Your task to perform on an android device: Go to Google Image 0: 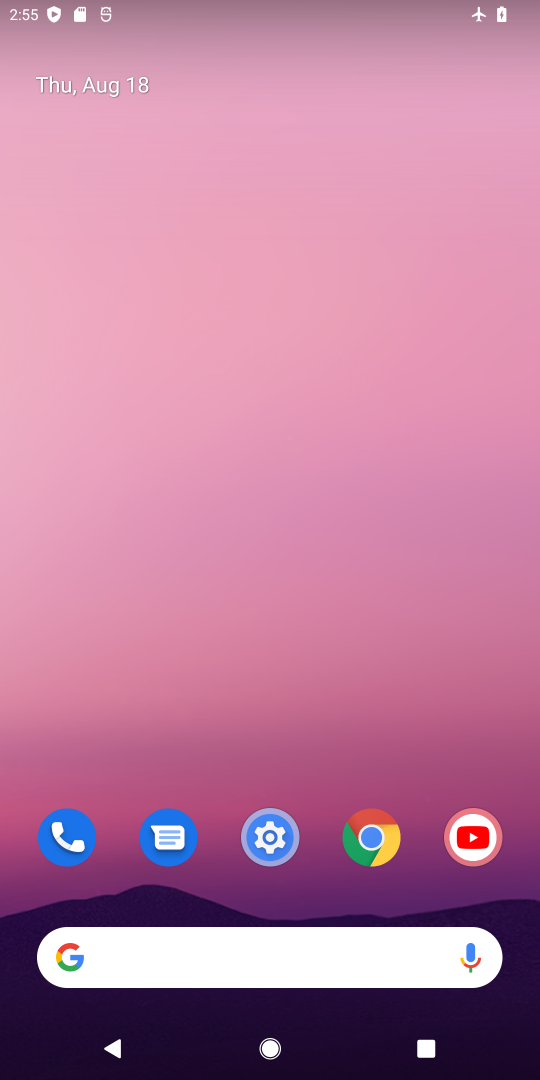
Step 0: drag from (322, 728) to (467, 6)
Your task to perform on an android device: Go to Google Image 1: 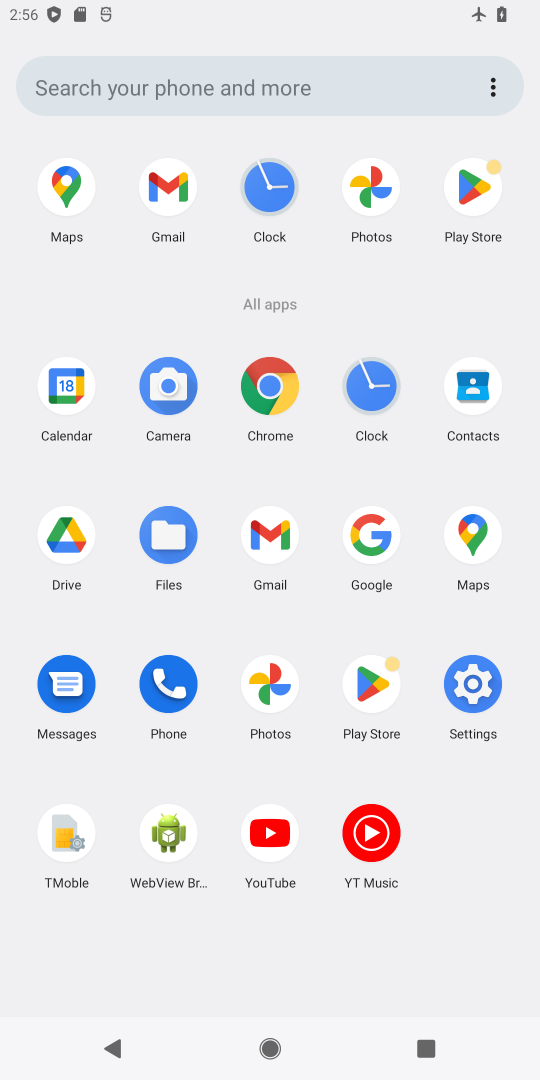
Step 1: click (368, 537)
Your task to perform on an android device: Go to Google Image 2: 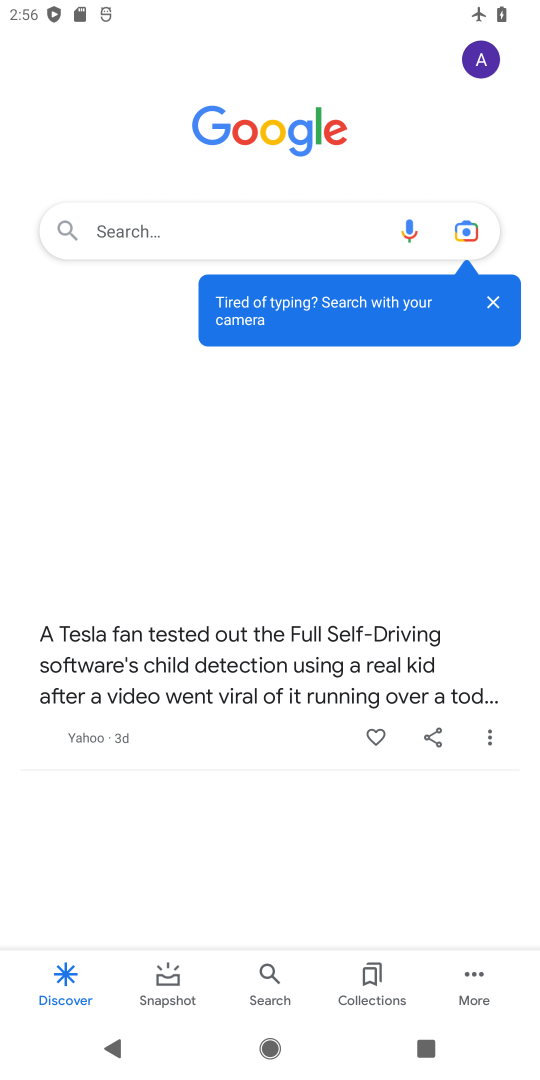
Step 2: task complete